Your task to perform on an android device: turn on the 24-hour format for clock Image 0: 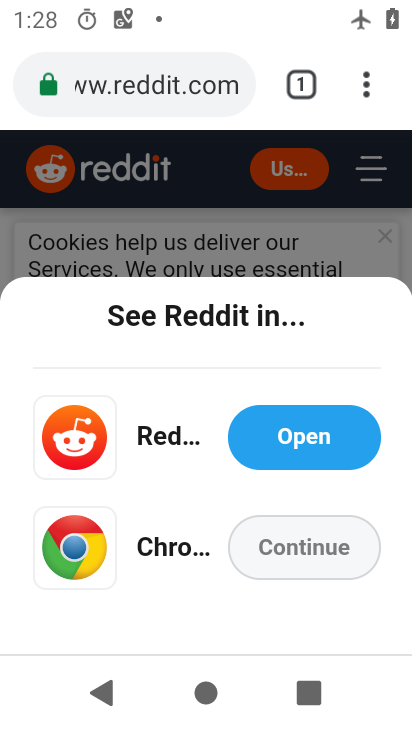
Step 0: press home button
Your task to perform on an android device: turn on the 24-hour format for clock Image 1: 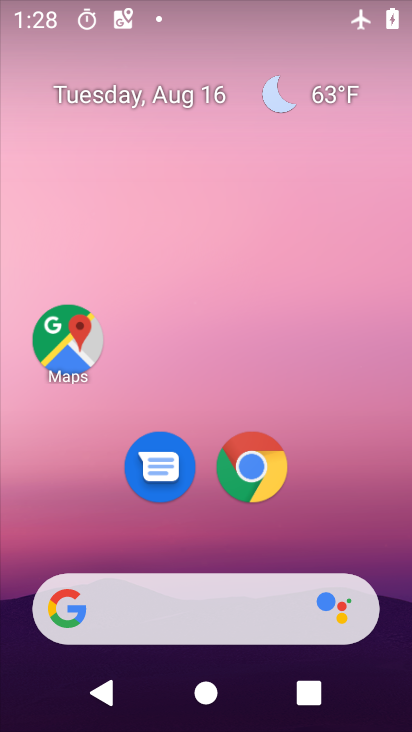
Step 1: drag from (337, 519) to (346, 68)
Your task to perform on an android device: turn on the 24-hour format for clock Image 2: 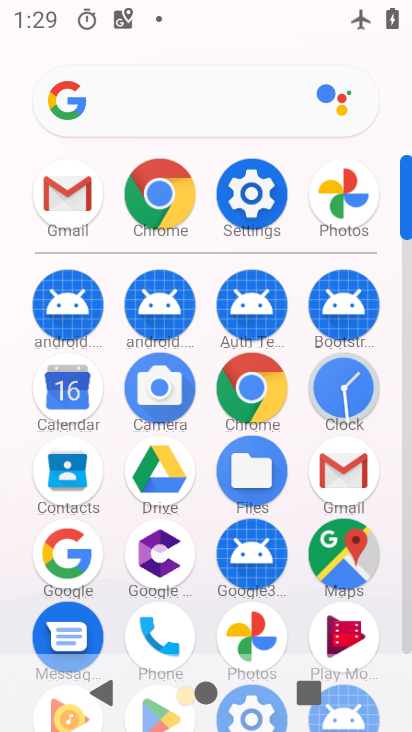
Step 2: click (332, 391)
Your task to perform on an android device: turn on the 24-hour format for clock Image 3: 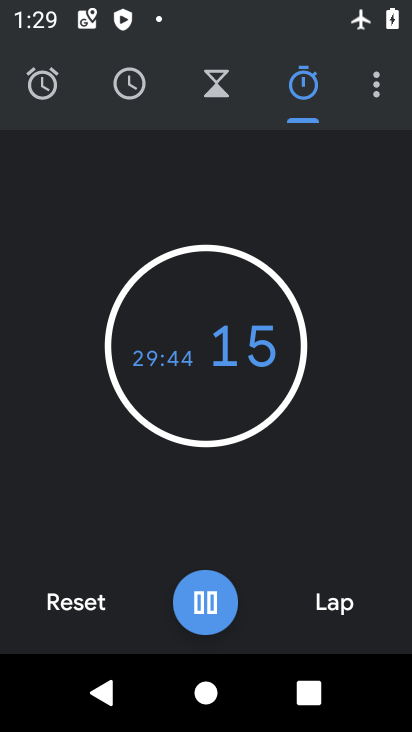
Step 3: click (379, 91)
Your task to perform on an android device: turn on the 24-hour format for clock Image 4: 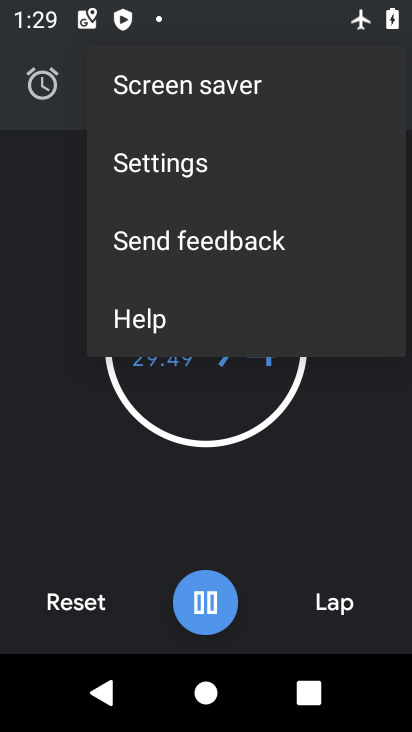
Step 4: click (174, 166)
Your task to perform on an android device: turn on the 24-hour format for clock Image 5: 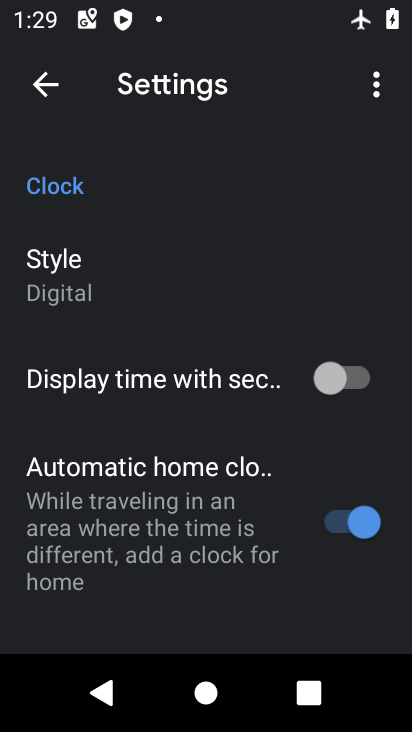
Step 5: drag from (279, 696) to (306, 517)
Your task to perform on an android device: turn on the 24-hour format for clock Image 6: 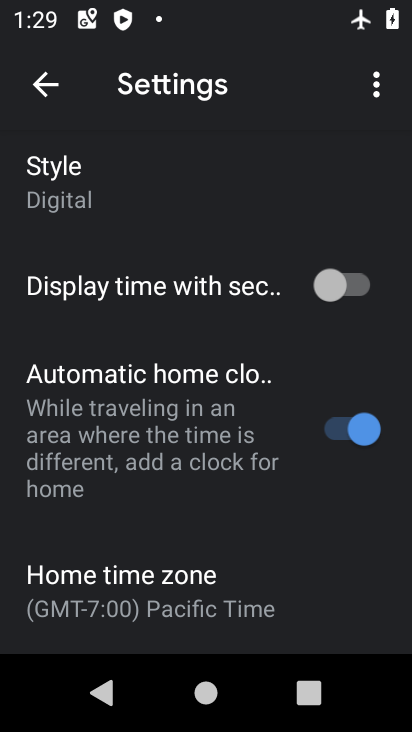
Step 6: drag from (292, 575) to (298, 311)
Your task to perform on an android device: turn on the 24-hour format for clock Image 7: 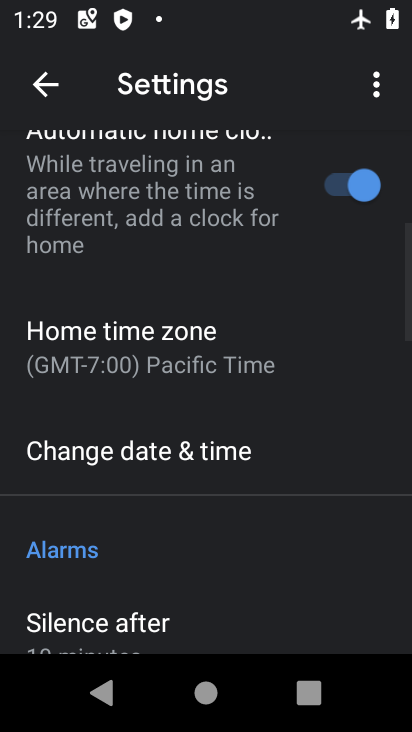
Step 7: drag from (299, 512) to (309, 299)
Your task to perform on an android device: turn on the 24-hour format for clock Image 8: 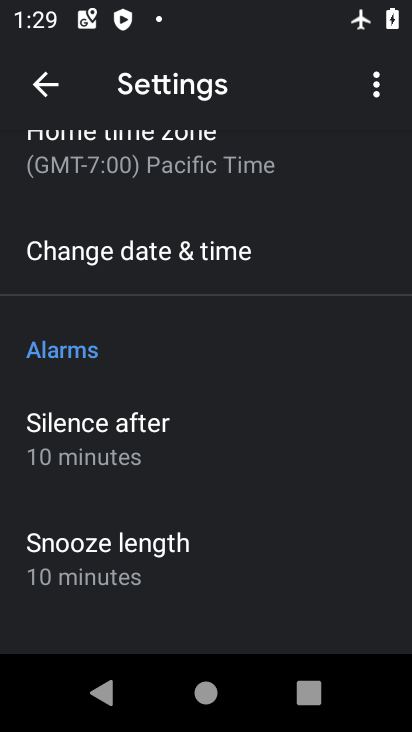
Step 8: drag from (329, 477) to (327, 241)
Your task to perform on an android device: turn on the 24-hour format for clock Image 9: 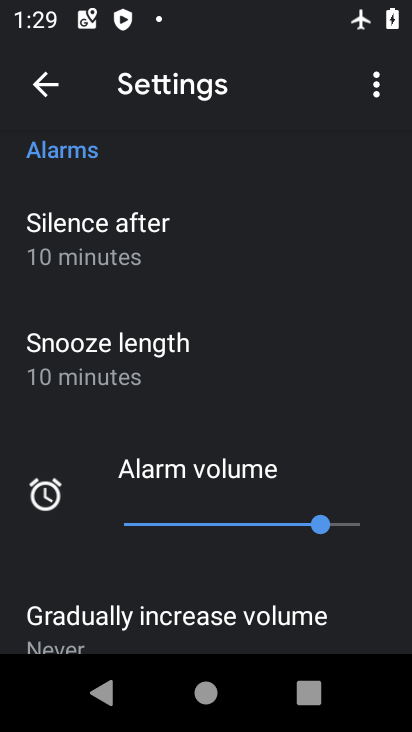
Step 9: drag from (323, 414) to (324, 213)
Your task to perform on an android device: turn on the 24-hour format for clock Image 10: 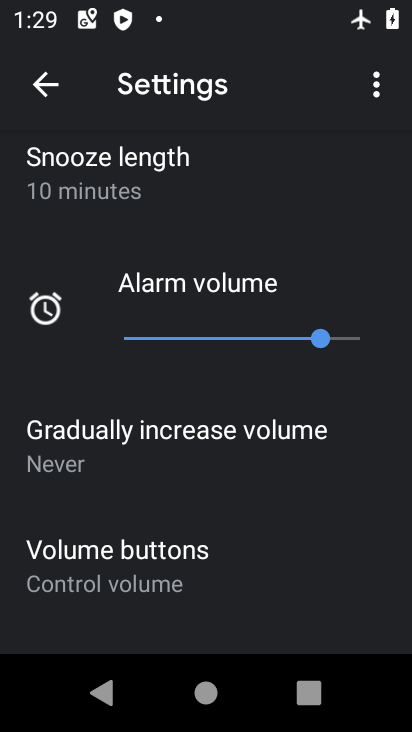
Step 10: drag from (324, 370) to (320, 133)
Your task to perform on an android device: turn on the 24-hour format for clock Image 11: 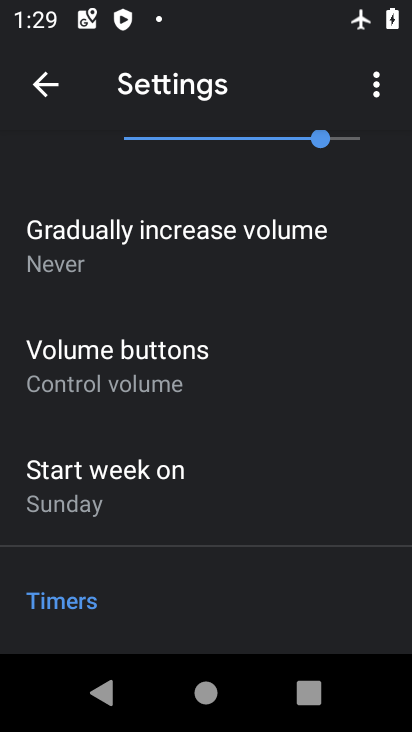
Step 11: drag from (312, 481) to (327, 248)
Your task to perform on an android device: turn on the 24-hour format for clock Image 12: 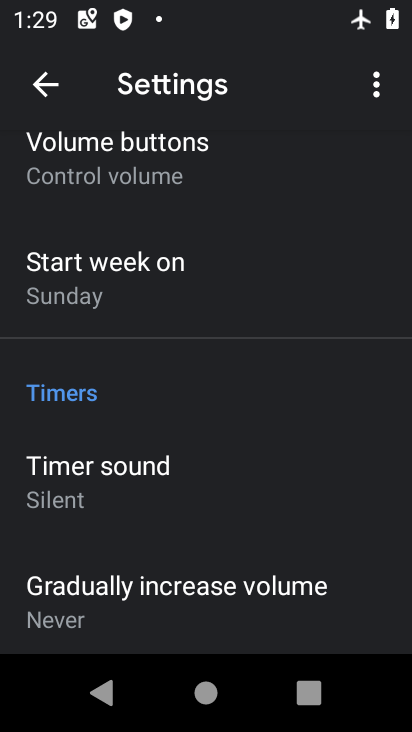
Step 12: drag from (298, 223) to (274, 379)
Your task to perform on an android device: turn on the 24-hour format for clock Image 13: 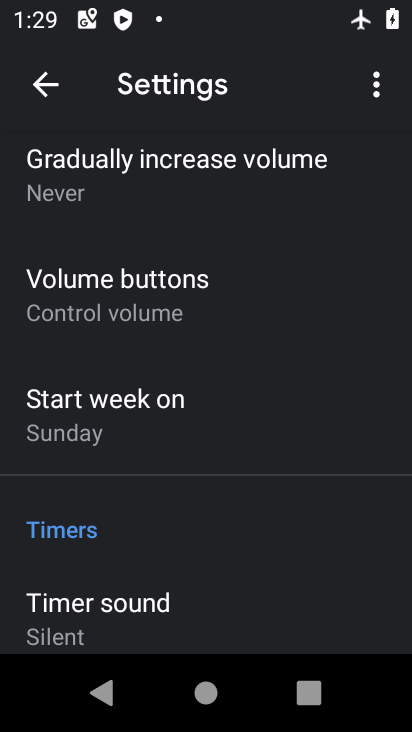
Step 13: drag from (253, 193) to (261, 354)
Your task to perform on an android device: turn on the 24-hour format for clock Image 14: 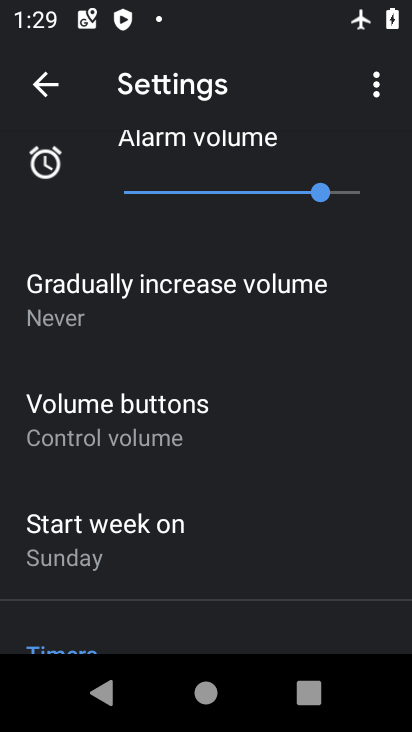
Step 14: drag from (266, 185) to (273, 428)
Your task to perform on an android device: turn on the 24-hour format for clock Image 15: 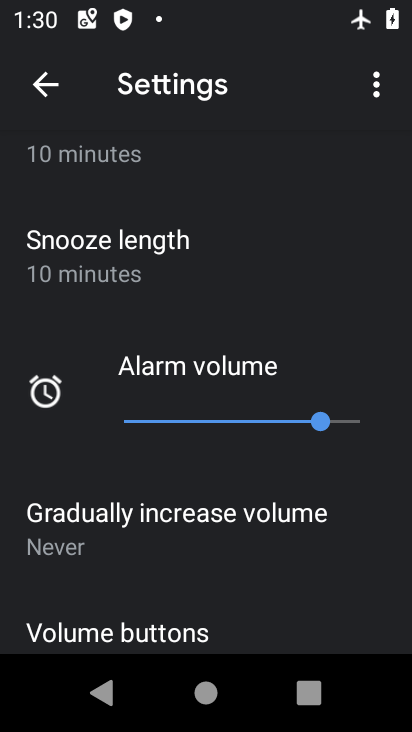
Step 15: drag from (256, 199) to (251, 409)
Your task to perform on an android device: turn on the 24-hour format for clock Image 16: 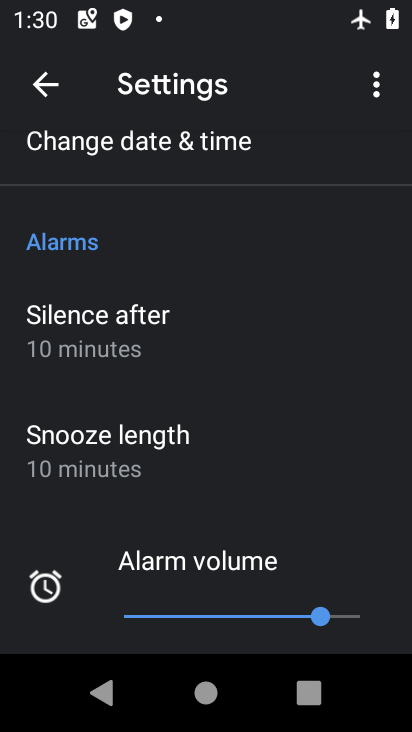
Step 16: click (241, 151)
Your task to perform on an android device: turn on the 24-hour format for clock Image 17: 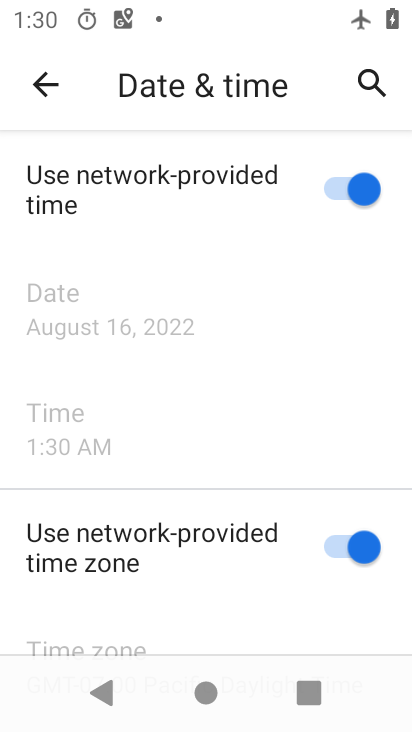
Step 17: drag from (230, 559) to (265, 335)
Your task to perform on an android device: turn on the 24-hour format for clock Image 18: 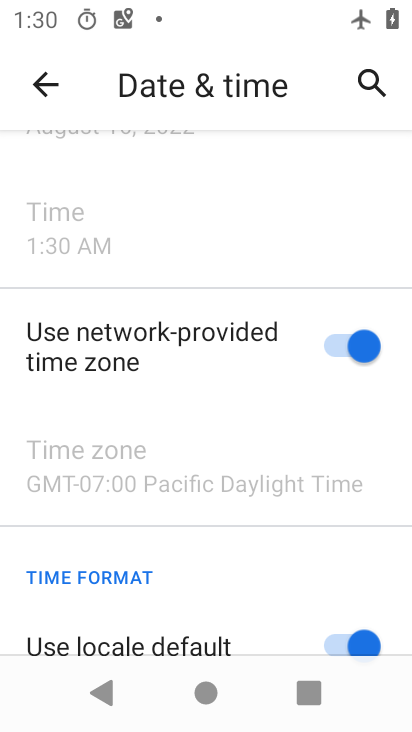
Step 18: drag from (223, 611) to (268, 365)
Your task to perform on an android device: turn on the 24-hour format for clock Image 19: 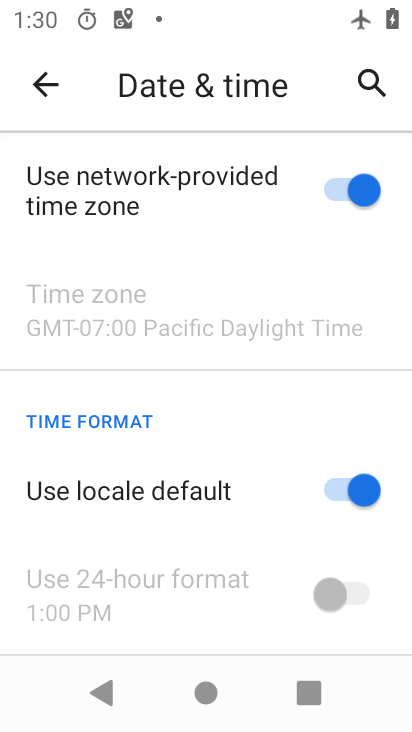
Step 19: click (368, 494)
Your task to perform on an android device: turn on the 24-hour format for clock Image 20: 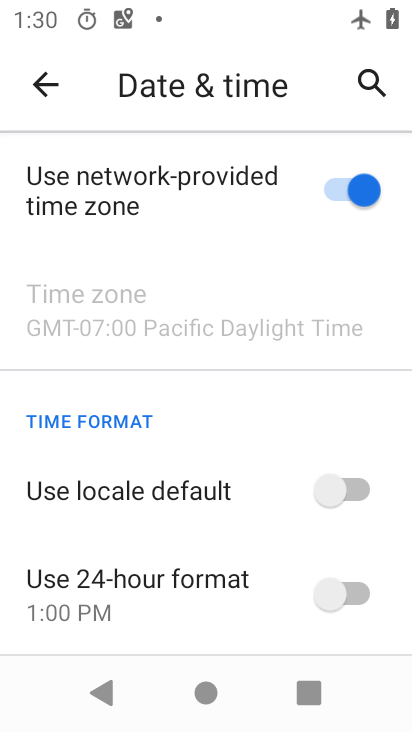
Step 20: click (330, 598)
Your task to perform on an android device: turn on the 24-hour format for clock Image 21: 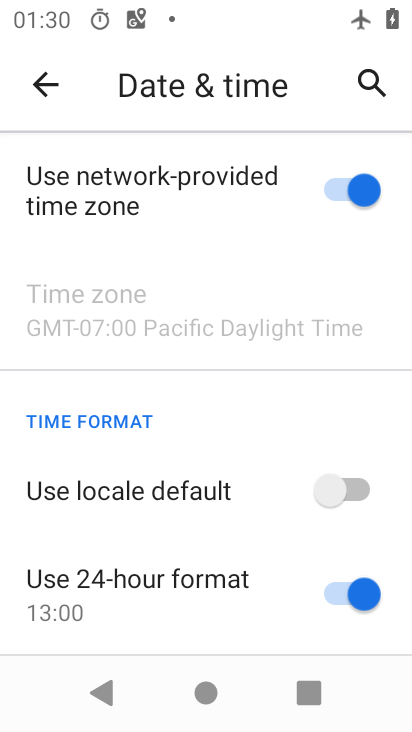
Step 21: task complete